Your task to perform on an android device: turn off location Image 0: 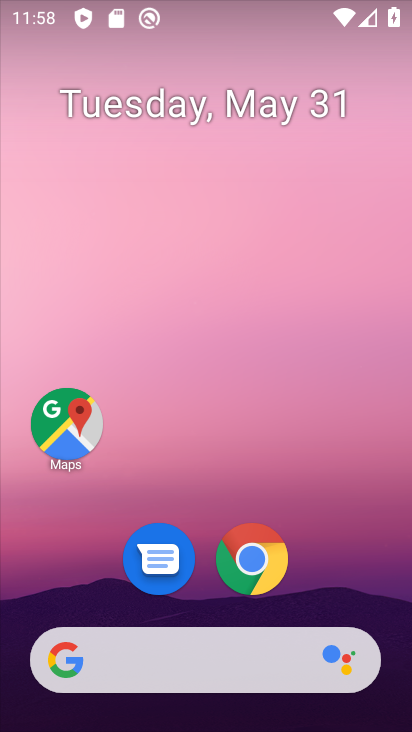
Step 0: drag from (104, 532) to (198, 162)
Your task to perform on an android device: turn off location Image 1: 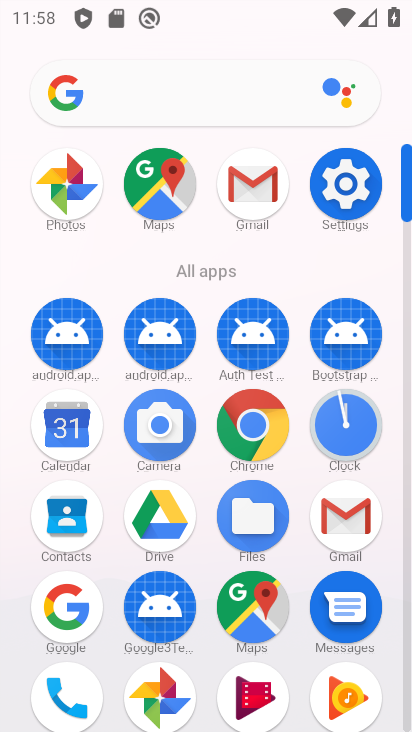
Step 1: drag from (206, 582) to (309, 230)
Your task to perform on an android device: turn off location Image 2: 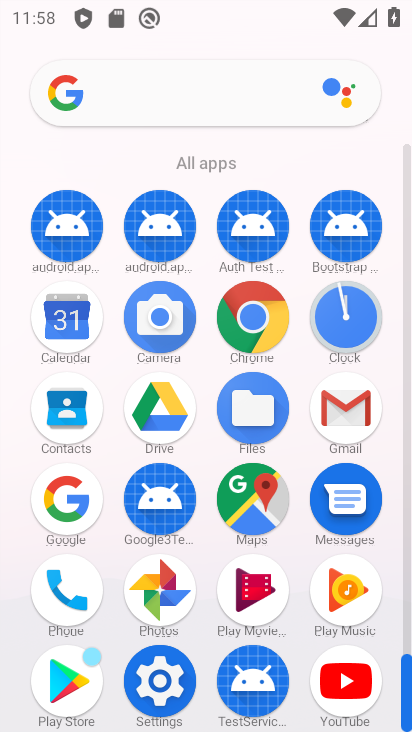
Step 2: click (158, 700)
Your task to perform on an android device: turn off location Image 3: 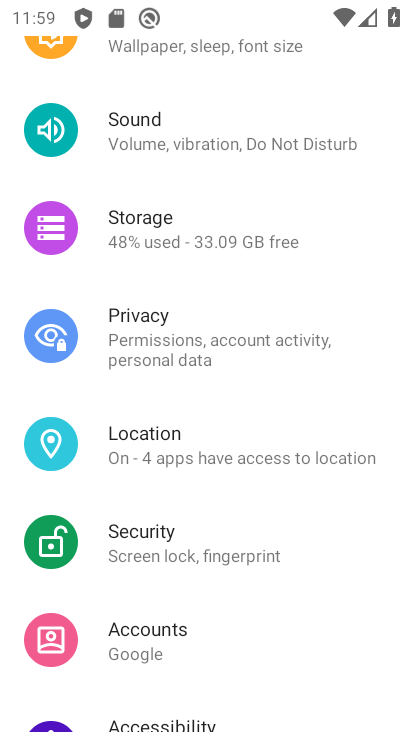
Step 3: click (182, 439)
Your task to perform on an android device: turn off location Image 4: 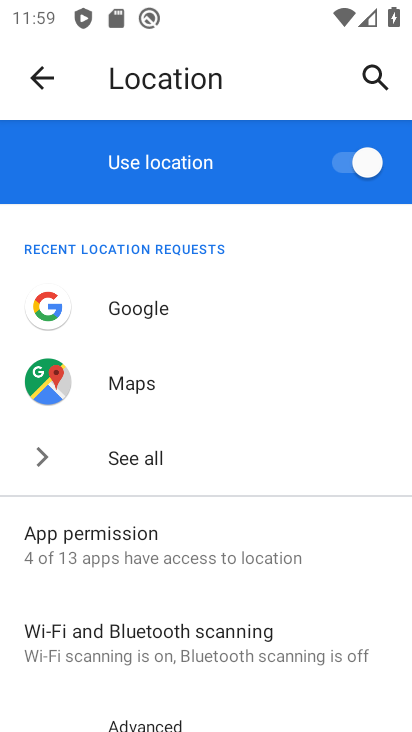
Step 4: click (341, 160)
Your task to perform on an android device: turn off location Image 5: 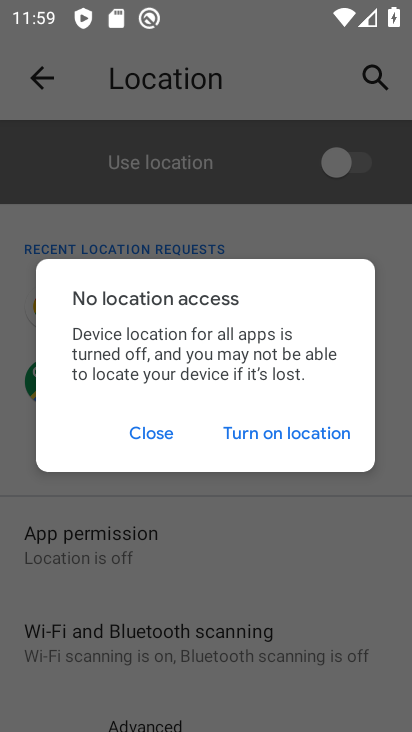
Step 5: task complete